Your task to perform on an android device: turn off javascript in the chrome app Image 0: 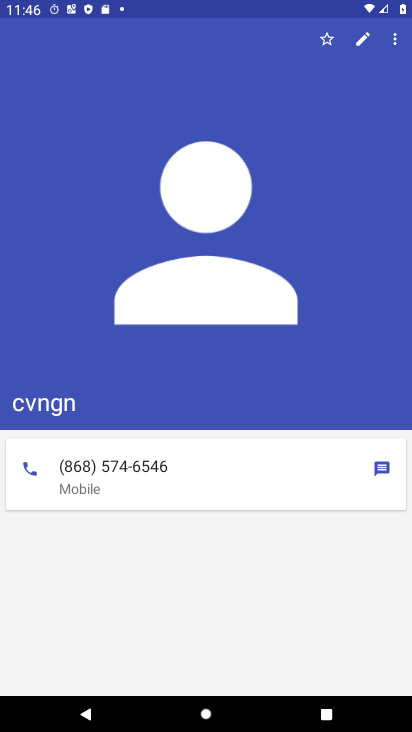
Step 0: press home button
Your task to perform on an android device: turn off javascript in the chrome app Image 1: 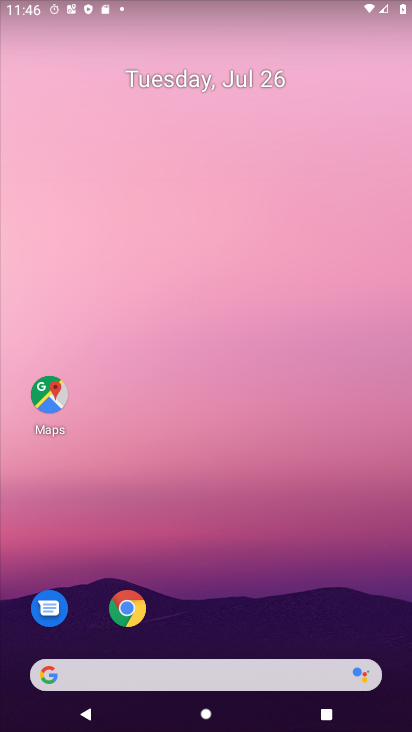
Step 1: click (127, 600)
Your task to perform on an android device: turn off javascript in the chrome app Image 2: 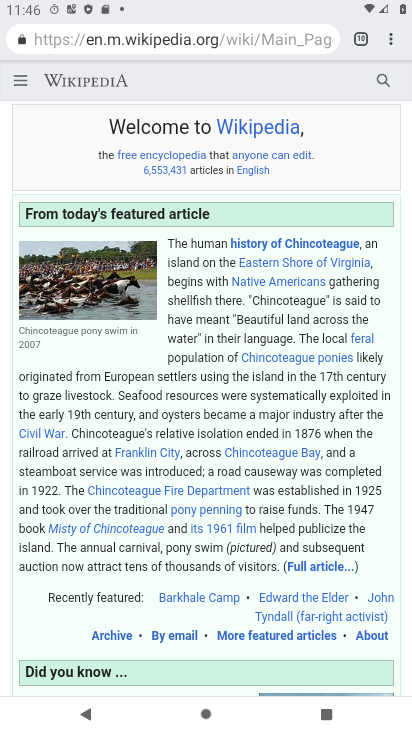
Step 2: click (389, 40)
Your task to perform on an android device: turn off javascript in the chrome app Image 3: 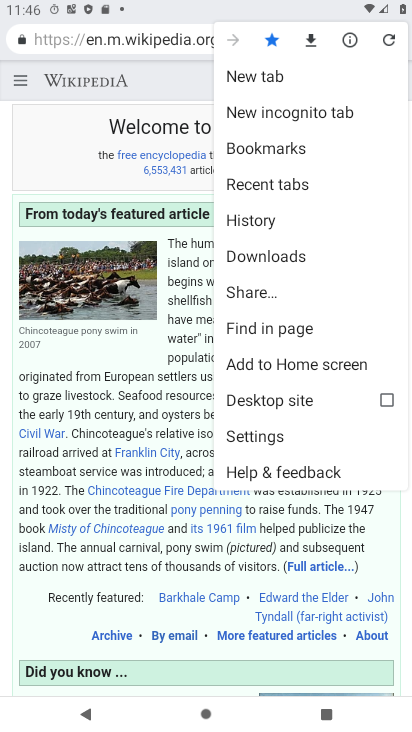
Step 3: click (257, 432)
Your task to perform on an android device: turn off javascript in the chrome app Image 4: 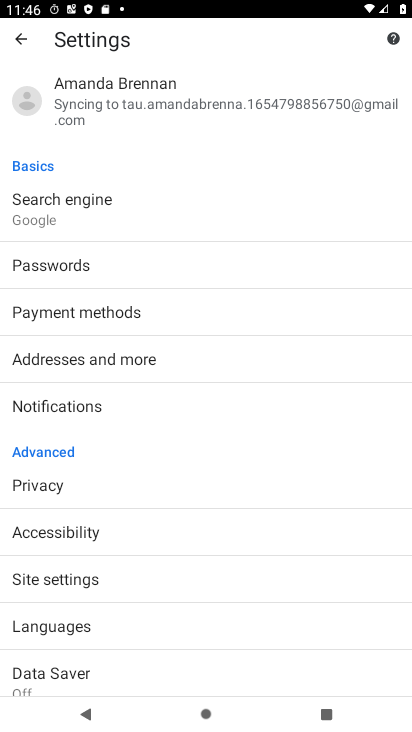
Step 4: click (97, 592)
Your task to perform on an android device: turn off javascript in the chrome app Image 5: 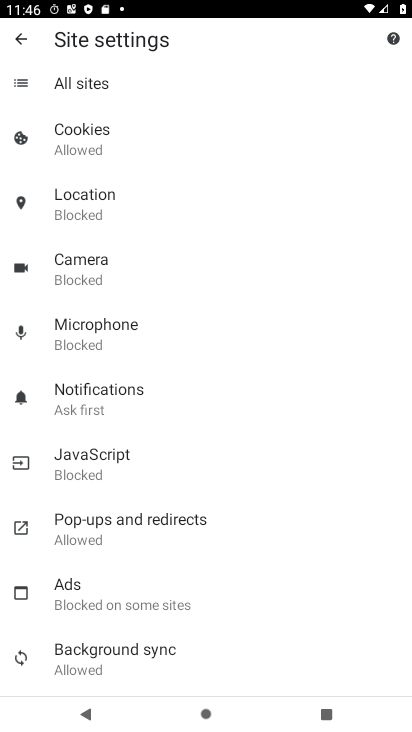
Step 5: click (108, 462)
Your task to perform on an android device: turn off javascript in the chrome app Image 6: 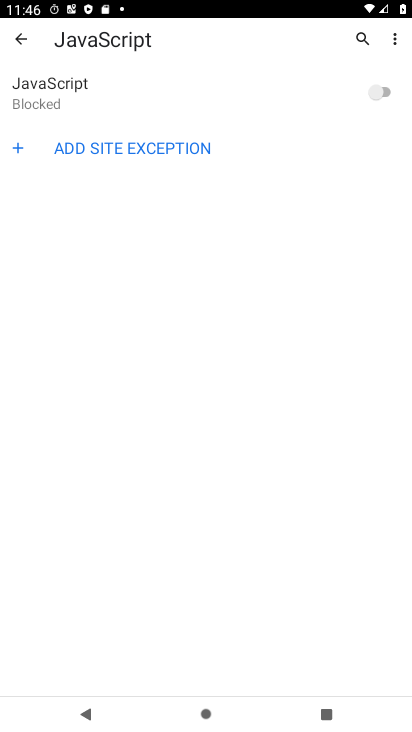
Step 6: task complete